Your task to perform on an android device: Go to eBay Image 0: 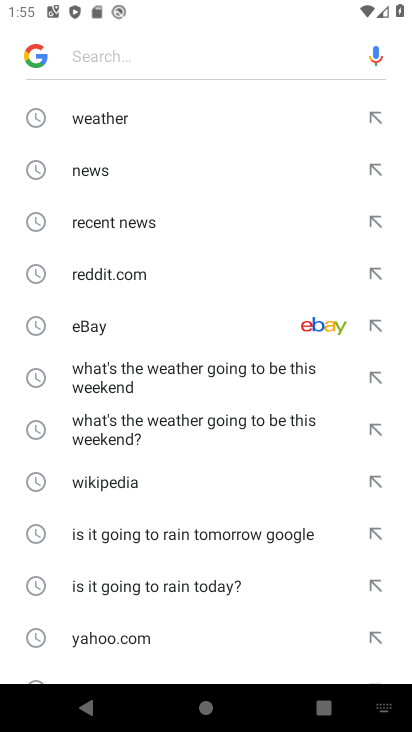
Step 0: click (164, 324)
Your task to perform on an android device: Go to eBay Image 1: 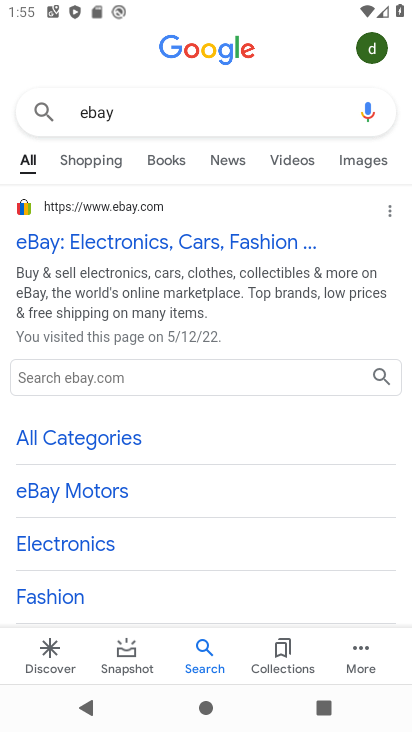
Step 1: click (177, 247)
Your task to perform on an android device: Go to eBay Image 2: 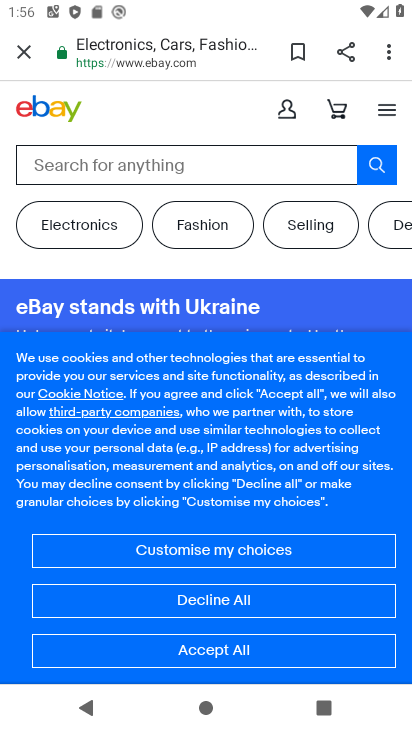
Step 2: task complete